Your task to perform on an android device: choose inbox layout in the gmail app Image 0: 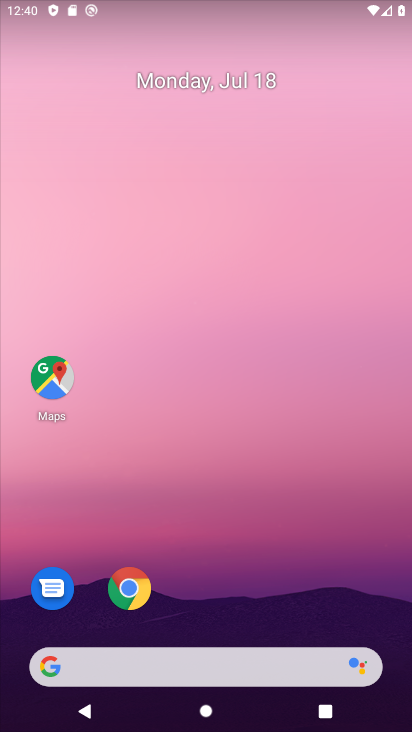
Step 0: drag from (292, 594) to (243, 9)
Your task to perform on an android device: choose inbox layout in the gmail app Image 1: 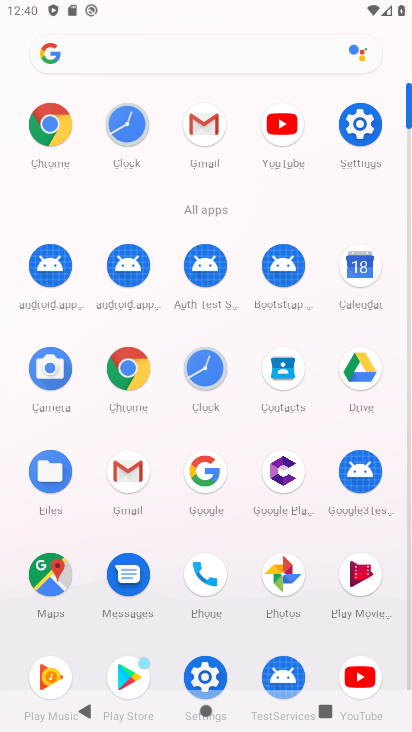
Step 1: click (198, 125)
Your task to perform on an android device: choose inbox layout in the gmail app Image 2: 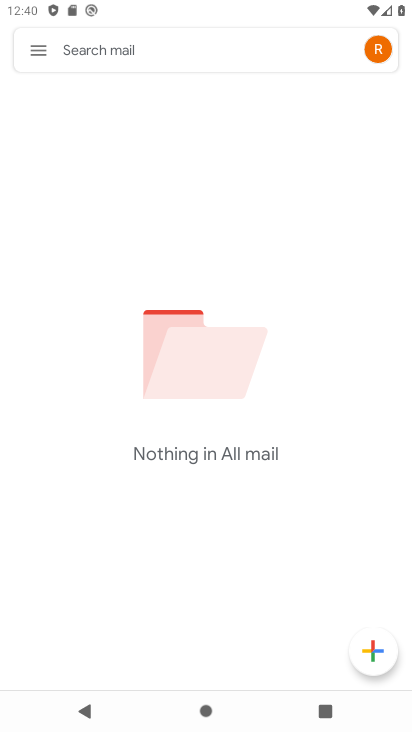
Step 2: click (44, 51)
Your task to perform on an android device: choose inbox layout in the gmail app Image 3: 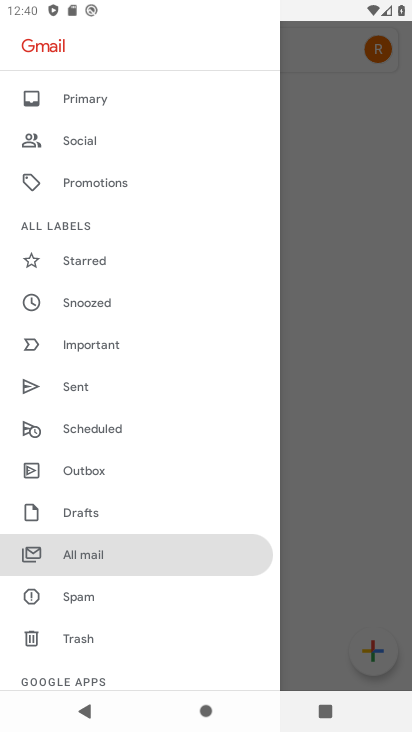
Step 3: drag from (116, 614) to (111, 302)
Your task to perform on an android device: choose inbox layout in the gmail app Image 4: 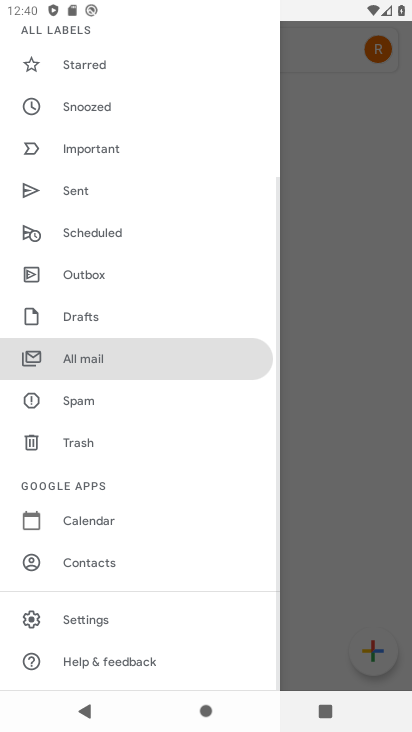
Step 4: click (152, 620)
Your task to perform on an android device: choose inbox layout in the gmail app Image 5: 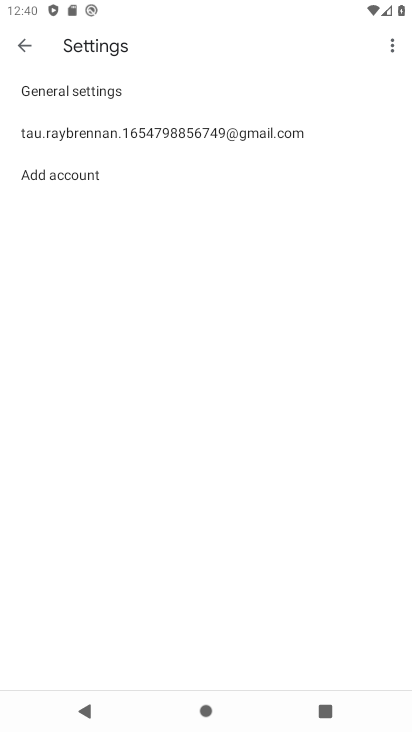
Step 5: click (173, 143)
Your task to perform on an android device: choose inbox layout in the gmail app Image 6: 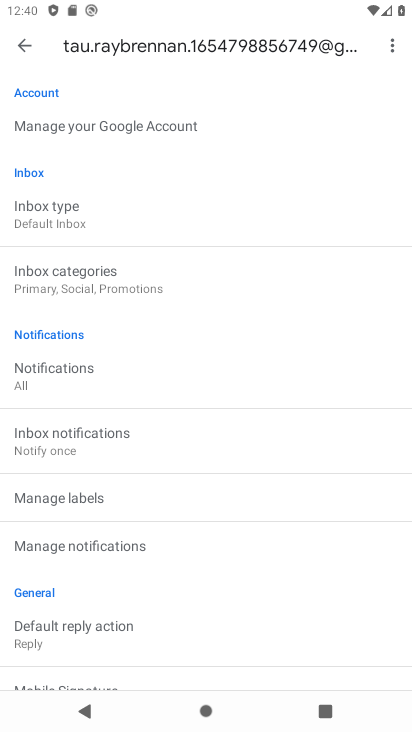
Step 6: click (79, 215)
Your task to perform on an android device: choose inbox layout in the gmail app Image 7: 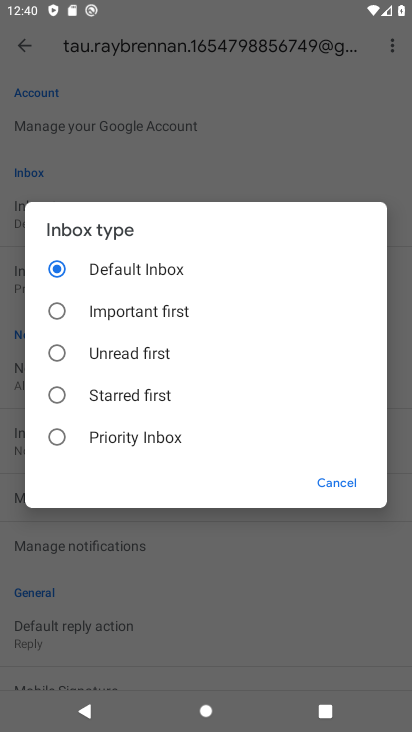
Step 7: click (115, 321)
Your task to perform on an android device: choose inbox layout in the gmail app Image 8: 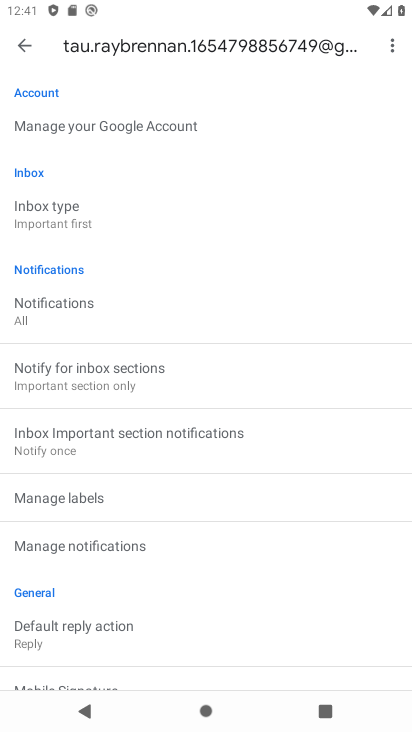
Step 8: task complete